Your task to perform on an android device: toggle notification dots Image 0: 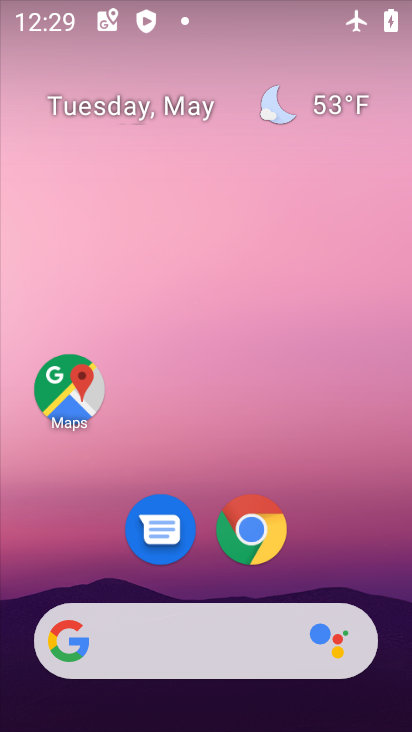
Step 0: drag from (225, 720) to (221, 256)
Your task to perform on an android device: toggle notification dots Image 1: 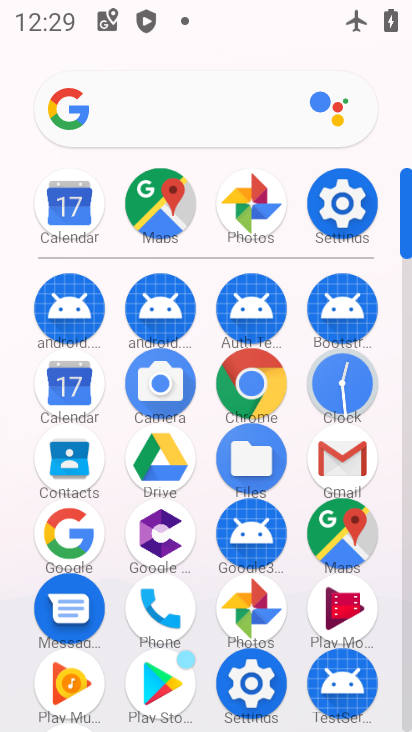
Step 1: click (341, 202)
Your task to perform on an android device: toggle notification dots Image 2: 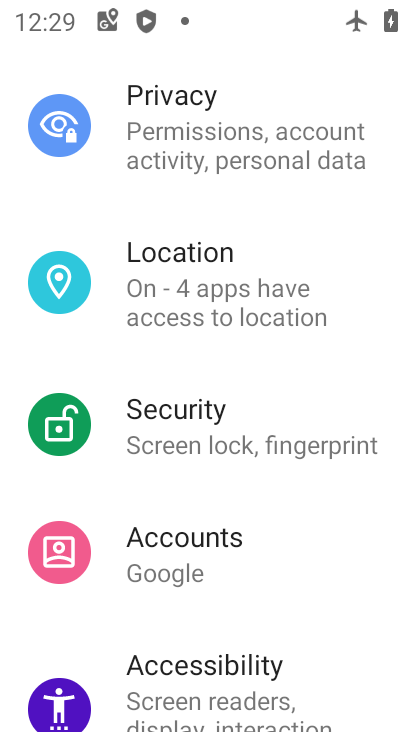
Step 2: drag from (173, 627) to (172, 558)
Your task to perform on an android device: toggle notification dots Image 3: 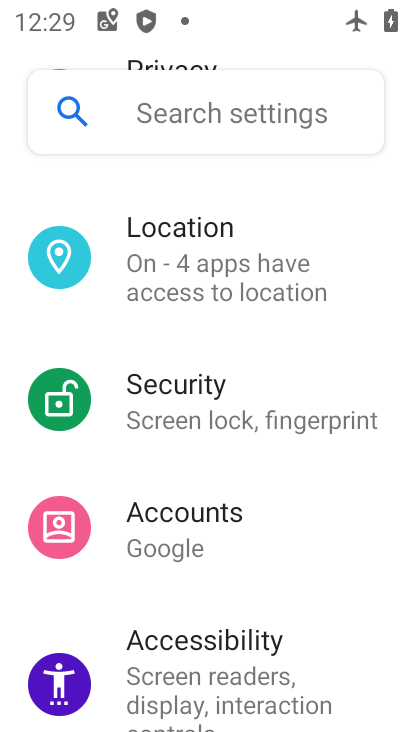
Step 3: drag from (218, 198) to (214, 595)
Your task to perform on an android device: toggle notification dots Image 4: 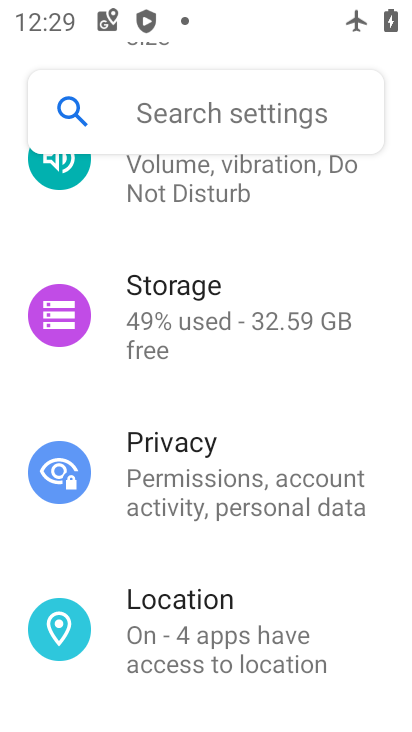
Step 4: drag from (194, 203) to (198, 567)
Your task to perform on an android device: toggle notification dots Image 5: 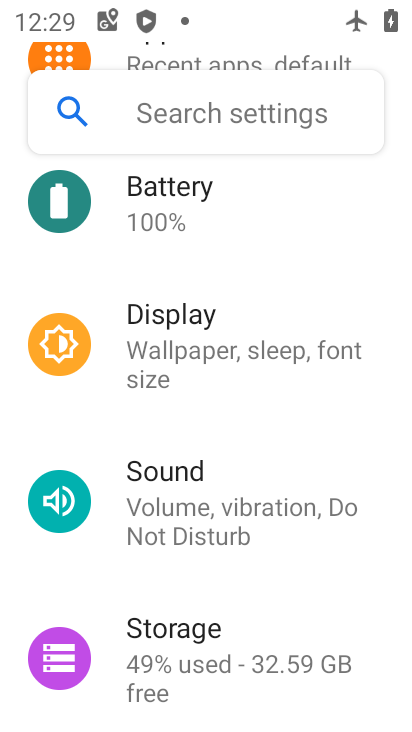
Step 5: drag from (231, 201) to (227, 611)
Your task to perform on an android device: toggle notification dots Image 6: 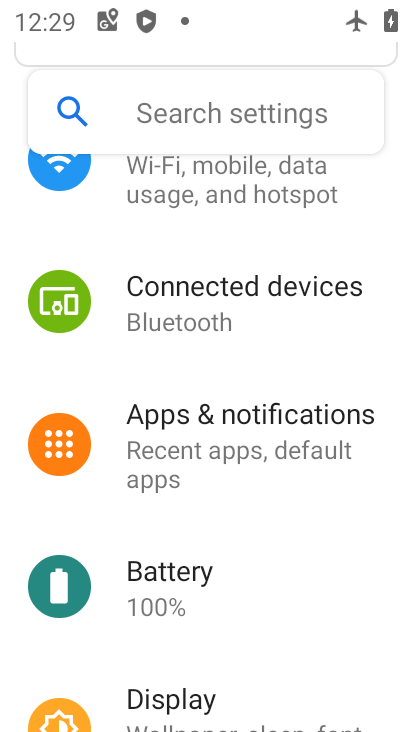
Step 6: click (231, 440)
Your task to perform on an android device: toggle notification dots Image 7: 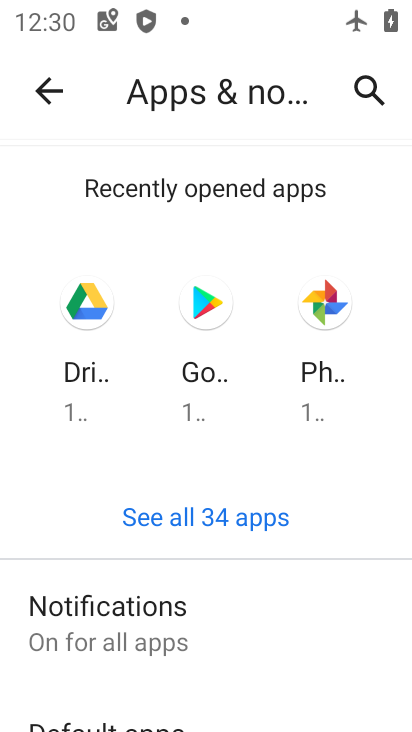
Step 7: click (89, 639)
Your task to perform on an android device: toggle notification dots Image 8: 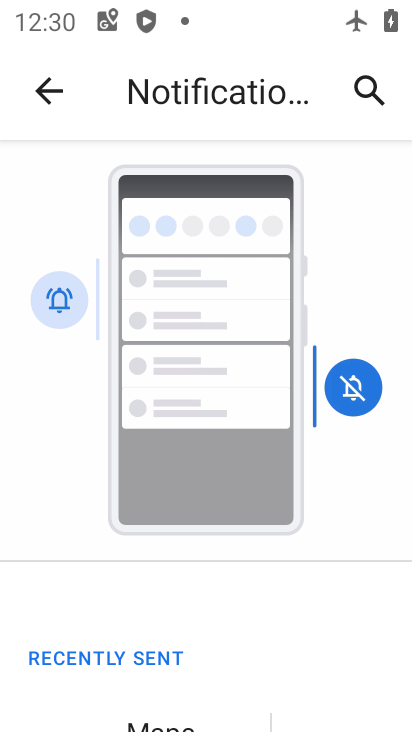
Step 8: drag from (174, 701) to (172, 215)
Your task to perform on an android device: toggle notification dots Image 9: 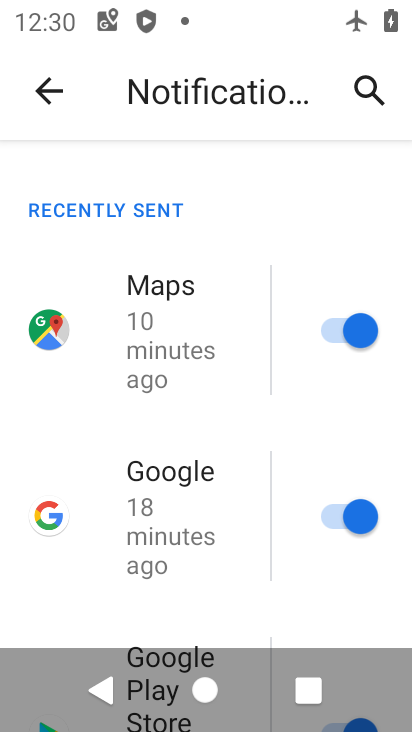
Step 9: drag from (175, 569) to (194, 145)
Your task to perform on an android device: toggle notification dots Image 10: 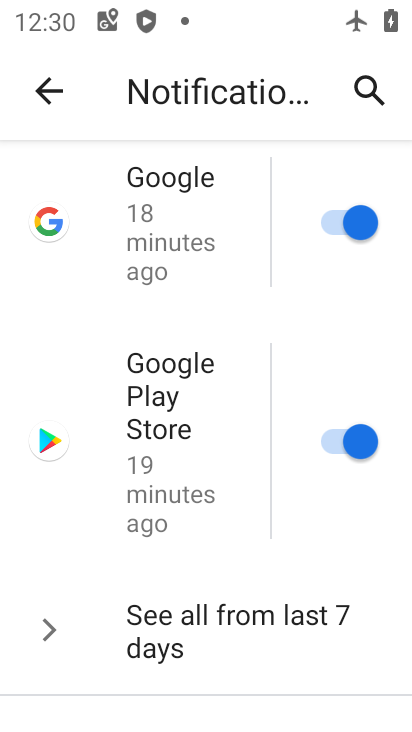
Step 10: drag from (184, 666) to (189, 319)
Your task to perform on an android device: toggle notification dots Image 11: 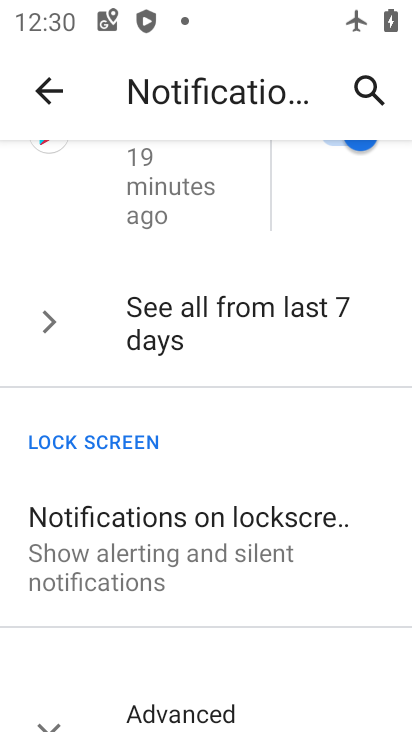
Step 11: drag from (176, 675) to (179, 328)
Your task to perform on an android device: toggle notification dots Image 12: 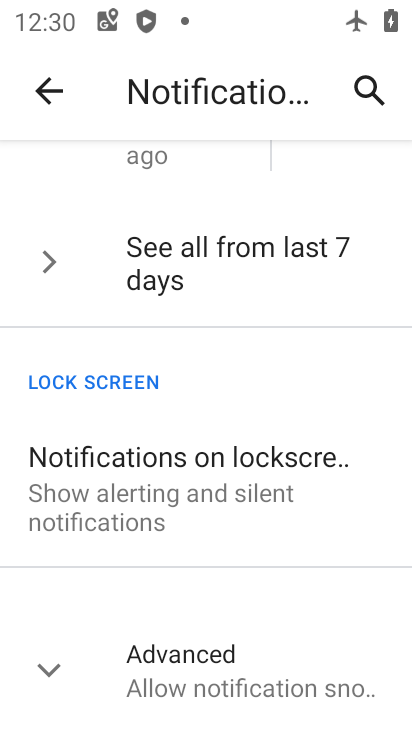
Step 12: click (177, 673)
Your task to perform on an android device: toggle notification dots Image 13: 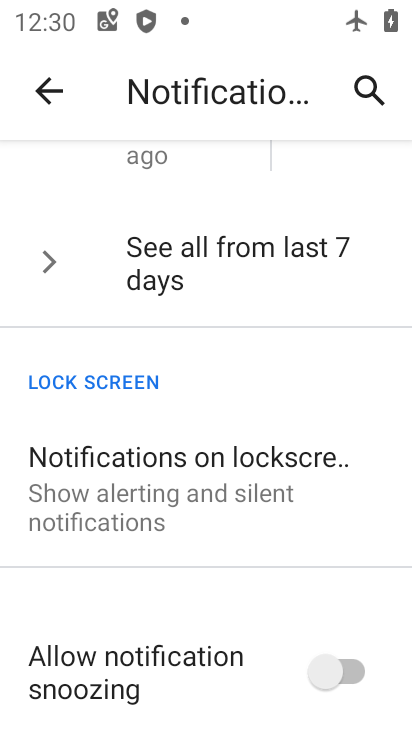
Step 13: drag from (178, 708) to (187, 324)
Your task to perform on an android device: toggle notification dots Image 14: 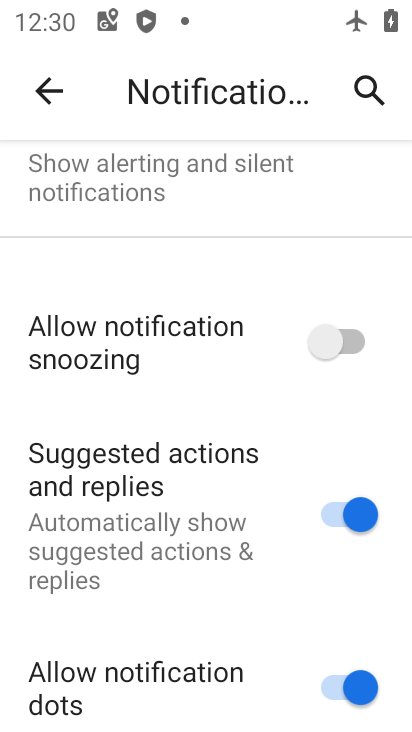
Step 14: drag from (153, 640) to (151, 450)
Your task to perform on an android device: toggle notification dots Image 15: 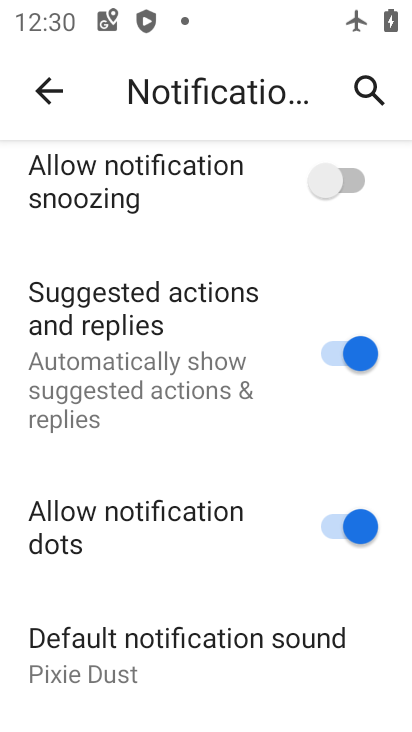
Step 15: drag from (184, 226) to (202, 469)
Your task to perform on an android device: toggle notification dots Image 16: 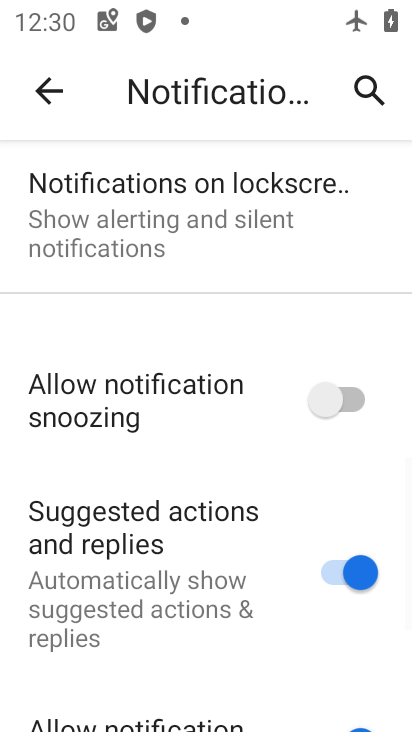
Step 16: drag from (156, 658) to (157, 316)
Your task to perform on an android device: toggle notification dots Image 17: 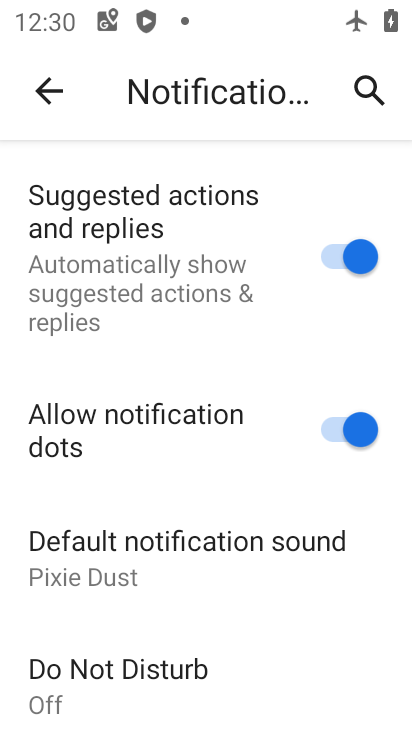
Step 17: click (325, 433)
Your task to perform on an android device: toggle notification dots Image 18: 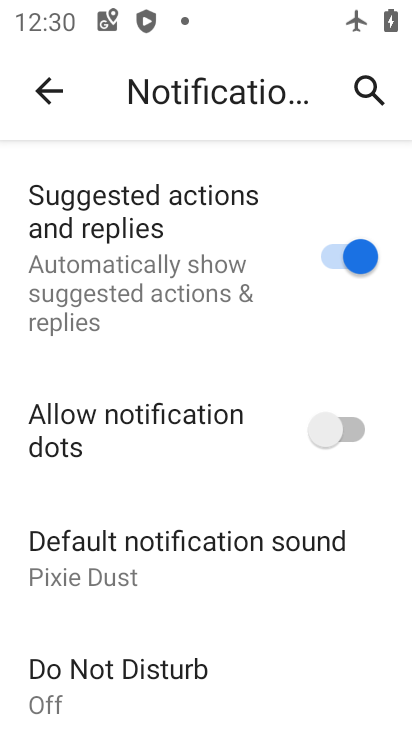
Step 18: task complete